Your task to perform on an android device: turn notification dots on Image 0: 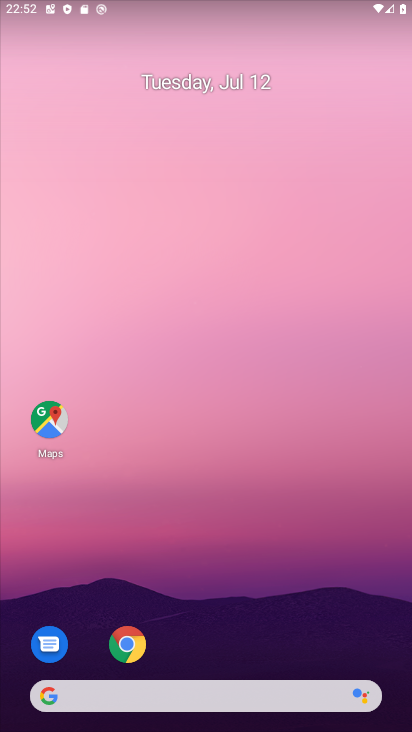
Step 0: drag from (140, 717) to (279, 40)
Your task to perform on an android device: turn notification dots on Image 1: 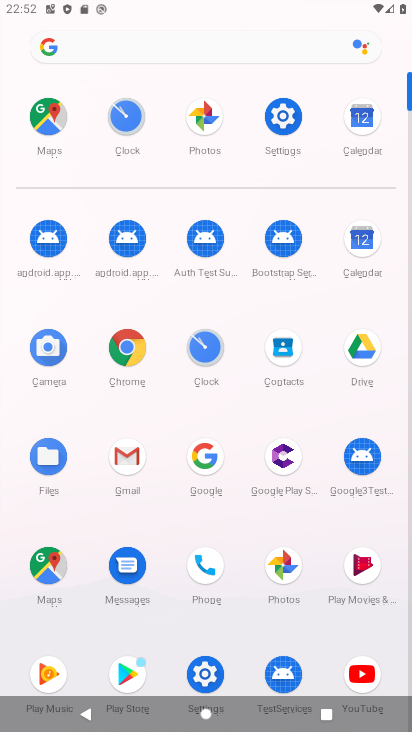
Step 1: click (275, 117)
Your task to perform on an android device: turn notification dots on Image 2: 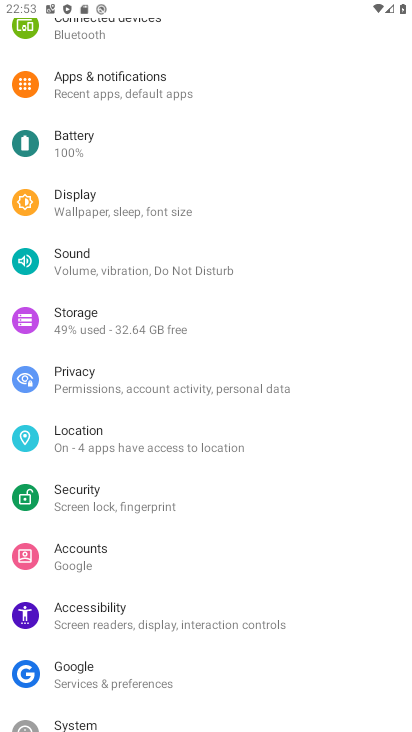
Step 2: click (191, 98)
Your task to perform on an android device: turn notification dots on Image 3: 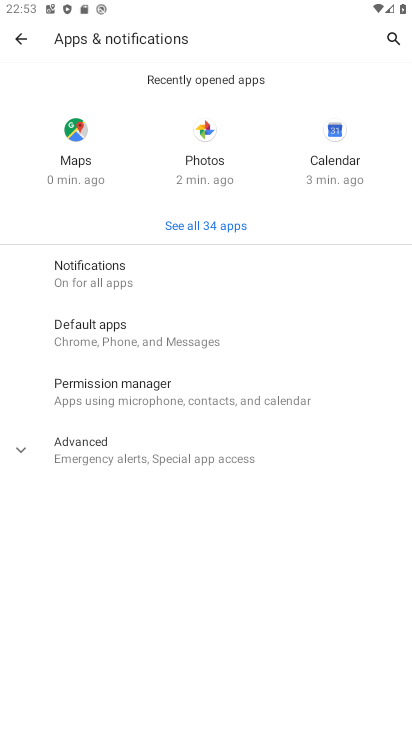
Step 3: click (182, 262)
Your task to perform on an android device: turn notification dots on Image 4: 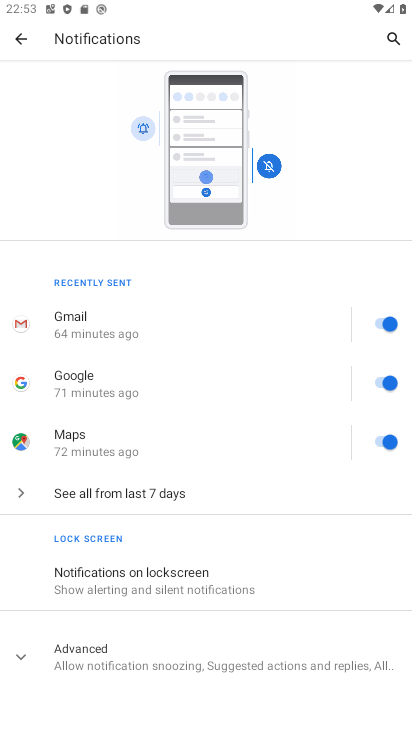
Step 4: click (215, 654)
Your task to perform on an android device: turn notification dots on Image 5: 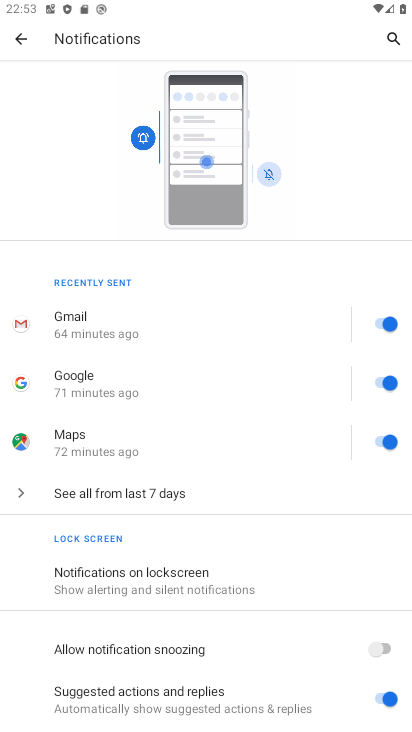
Step 5: task complete